Your task to perform on an android device: open the mobile data screen to see how much data has been used Image 0: 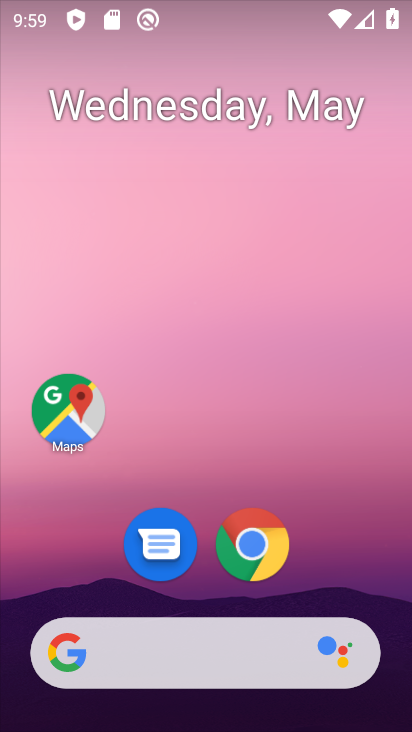
Step 0: drag from (335, 608) to (361, 245)
Your task to perform on an android device: open the mobile data screen to see how much data has been used Image 1: 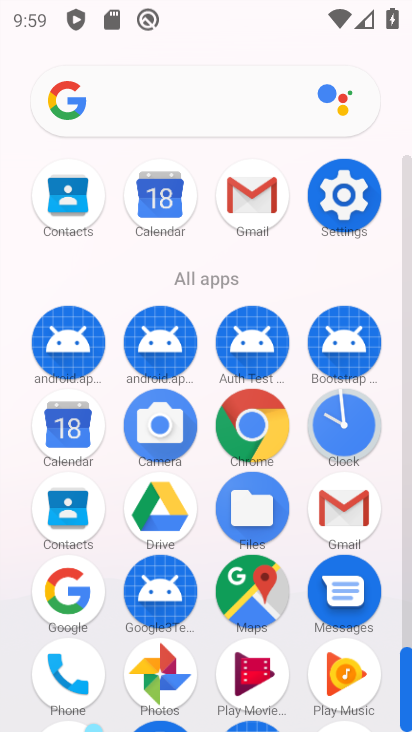
Step 1: click (254, 509)
Your task to perform on an android device: open the mobile data screen to see how much data has been used Image 2: 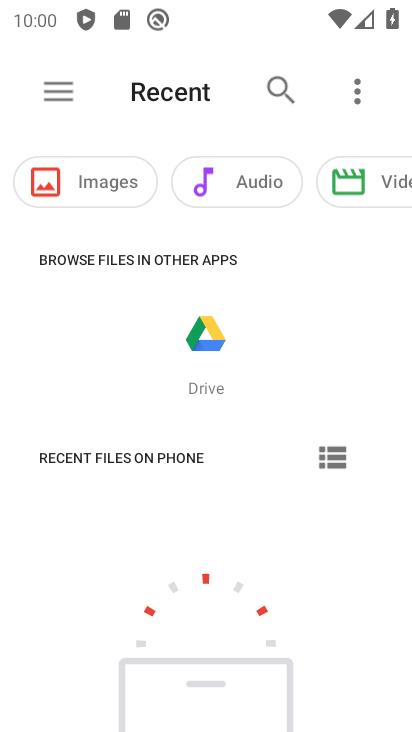
Step 2: press home button
Your task to perform on an android device: open the mobile data screen to see how much data has been used Image 3: 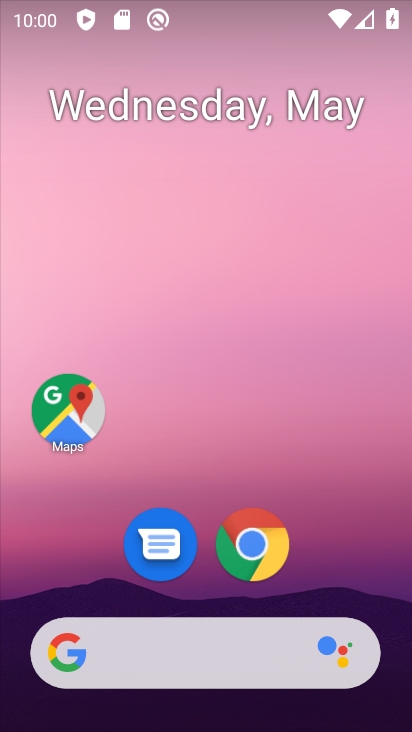
Step 3: drag from (295, 650) to (250, 122)
Your task to perform on an android device: open the mobile data screen to see how much data has been used Image 4: 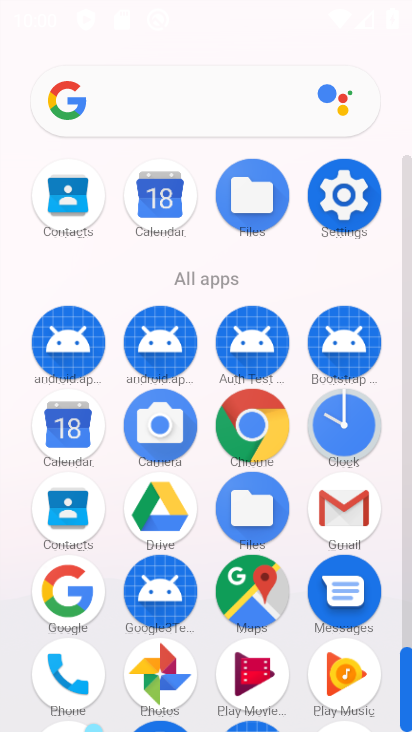
Step 4: click (339, 184)
Your task to perform on an android device: open the mobile data screen to see how much data has been used Image 5: 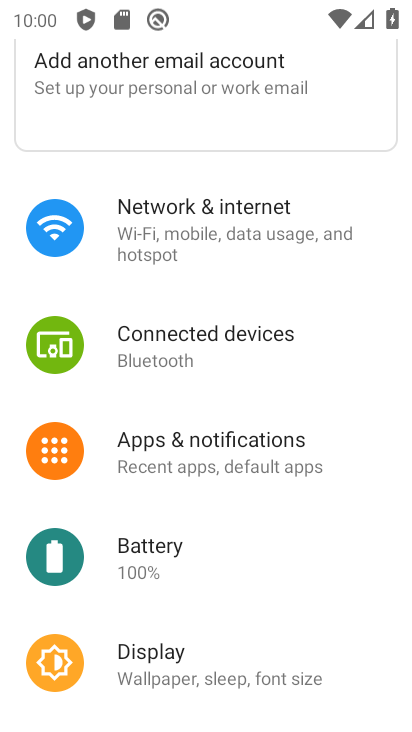
Step 5: click (225, 250)
Your task to perform on an android device: open the mobile data screen to see how much data has been used Image 6: 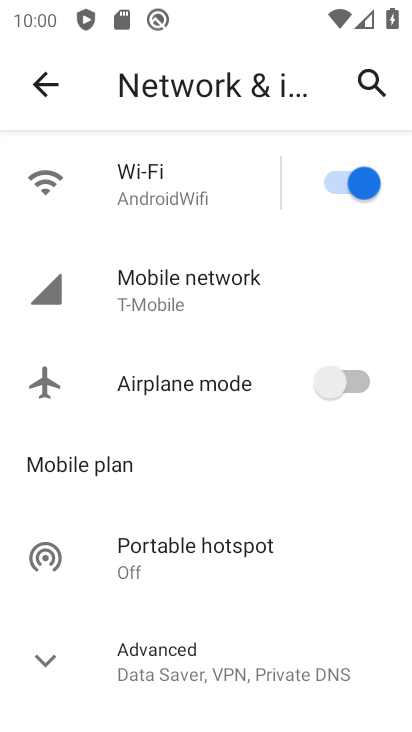
Step 6: click (212, 303)
Your task to perform on an android device: open the mobile data screen to see how much data has been used Image 7: 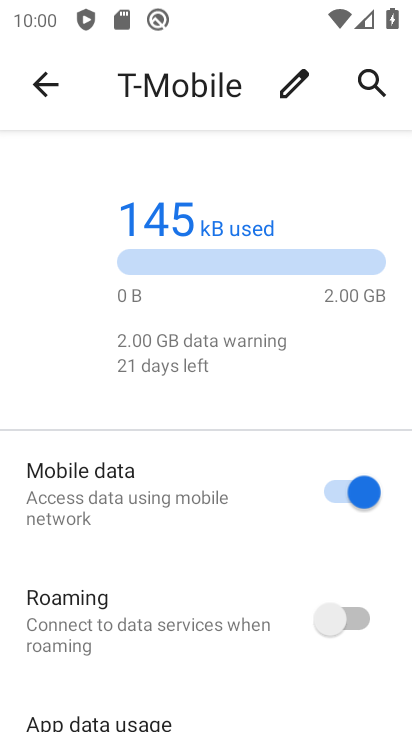
Step 7: task complete